Your task to perform on an android device: Go to display settings Image 0: 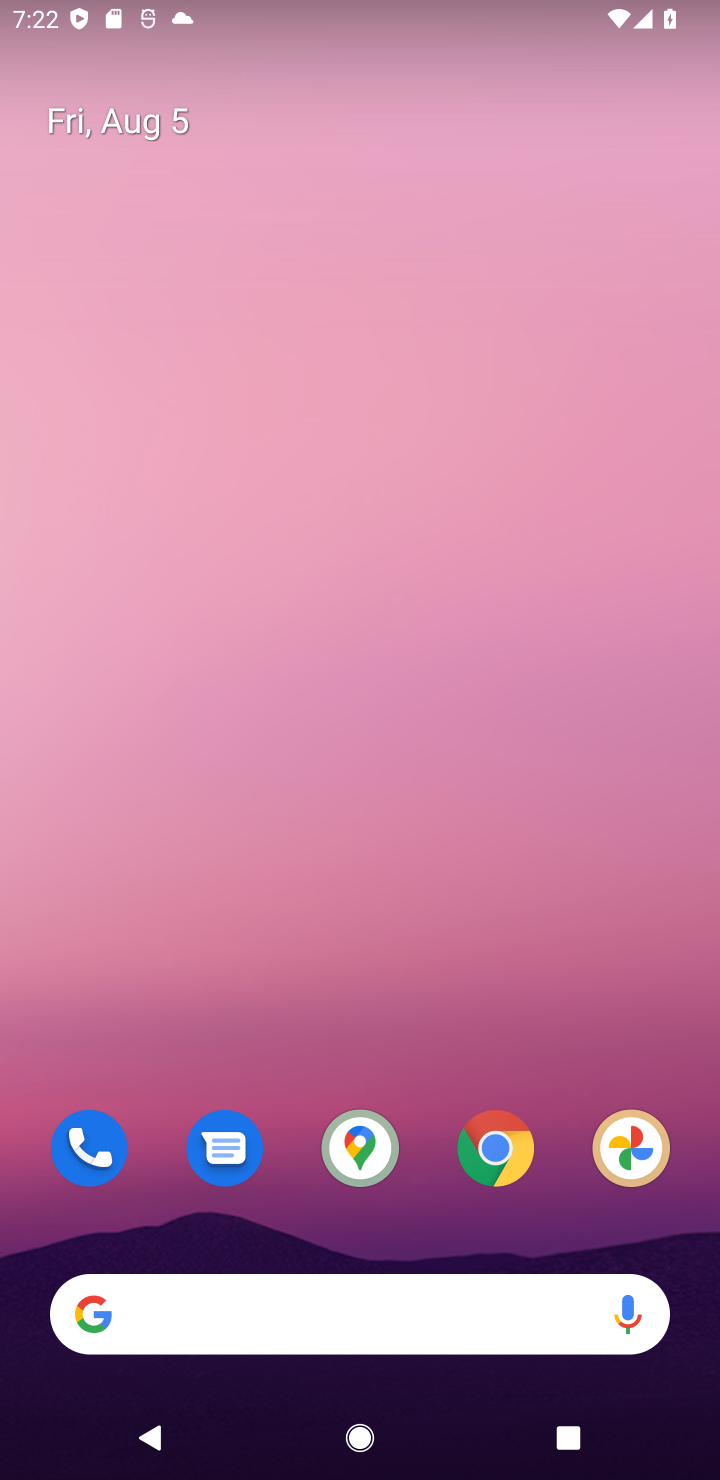
Step 0: drag from (299, 1262) to (320, 281)
Your task to perform on an android device: Go to display settings Image 1: 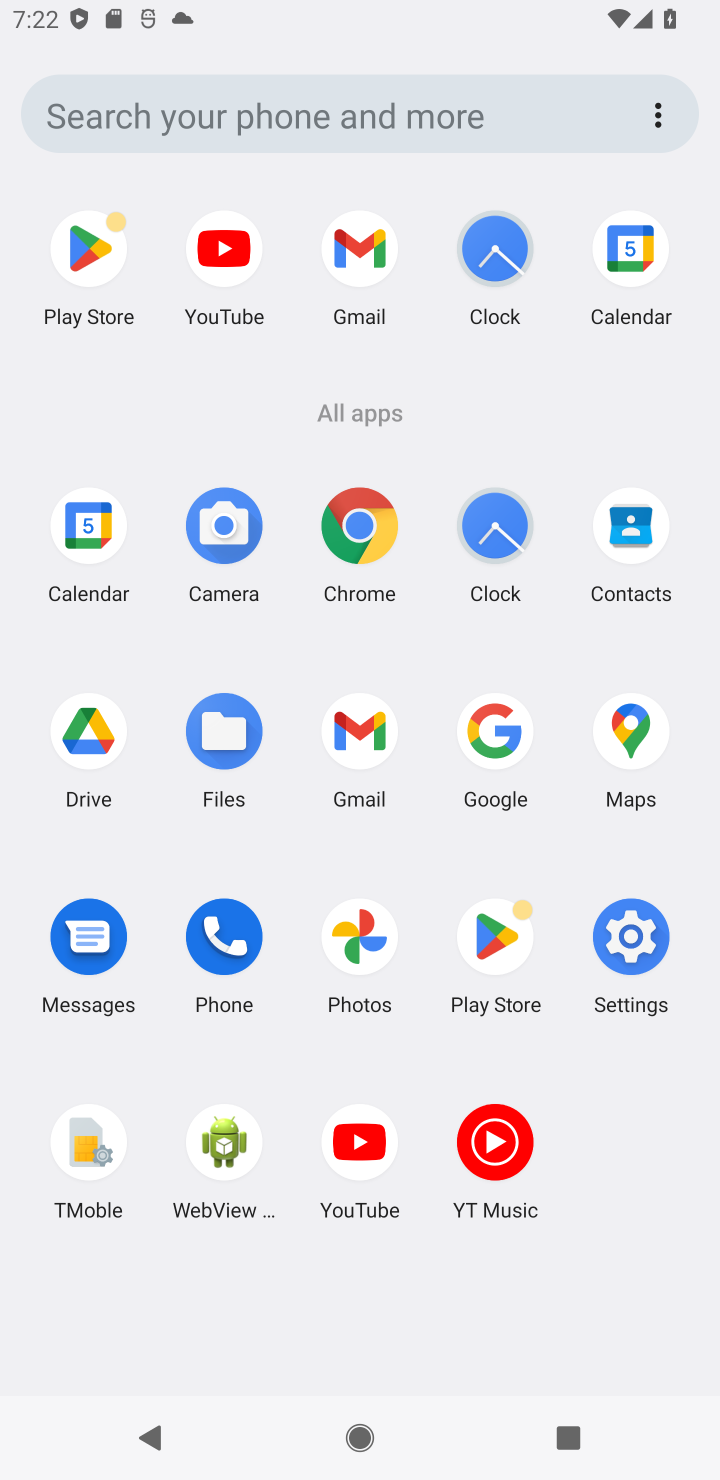
Step 1: click (609, 1003)
Your task to perform on an android device: Go to display settings Image 2: 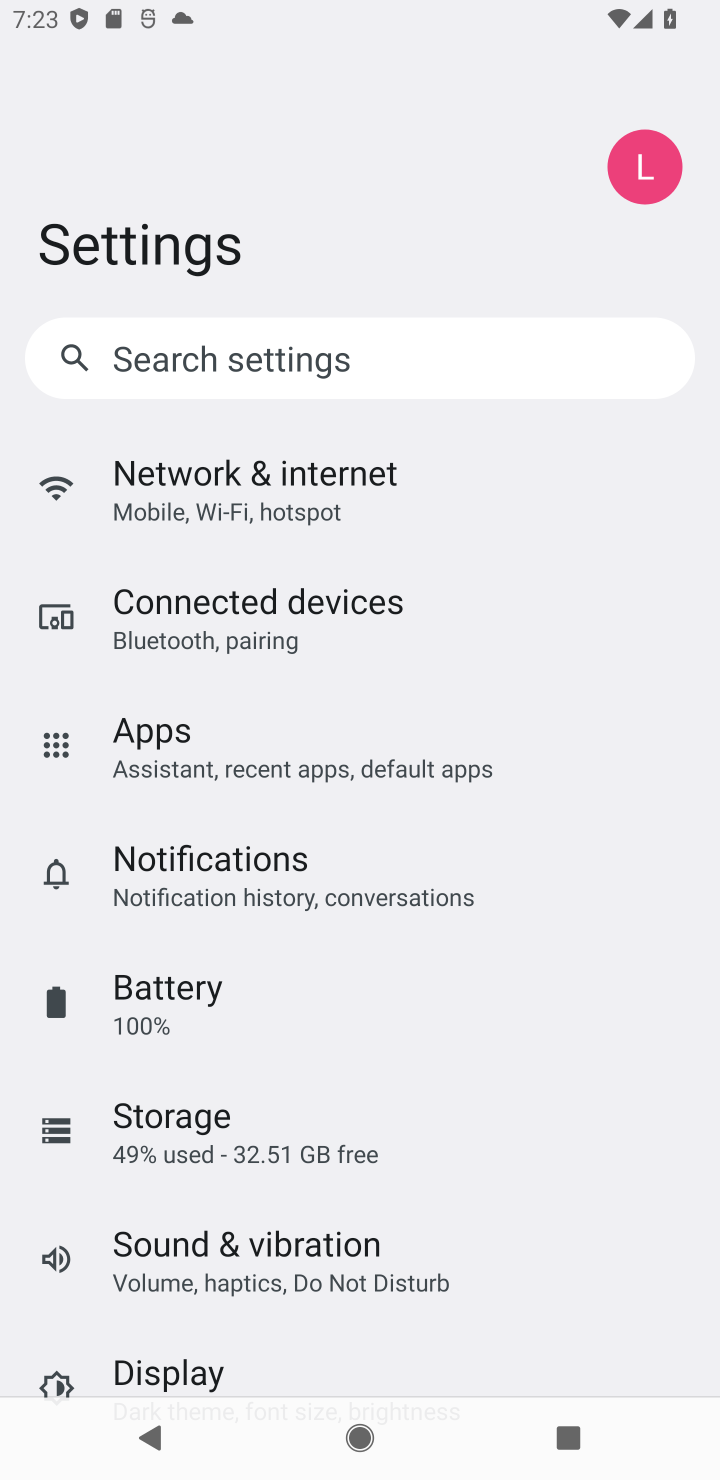
Step 2: click (182, 1349)
Your task to perform on an android device: Go to display settings Image 3: 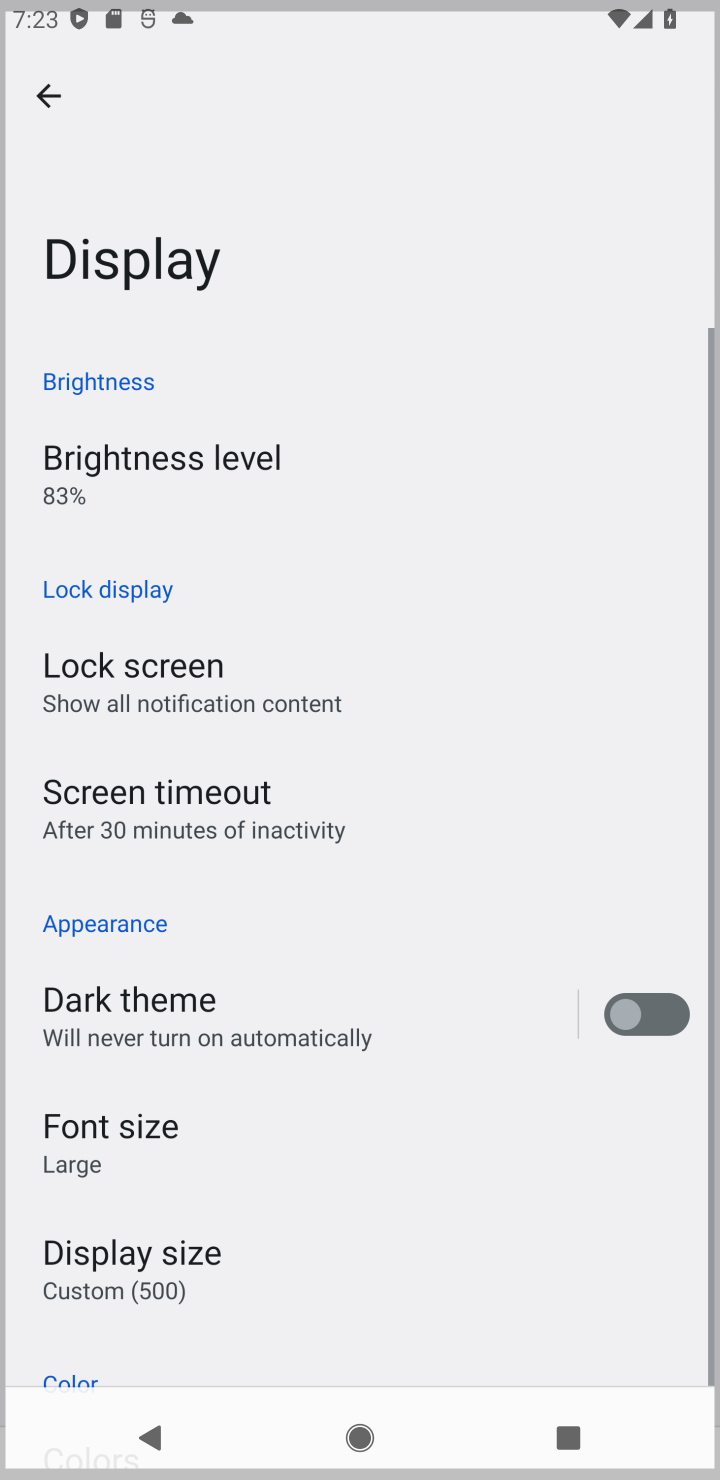
Step 3: task complete